Your task to perform on an android device: Check the latest 3D printers on Target. Image 0: 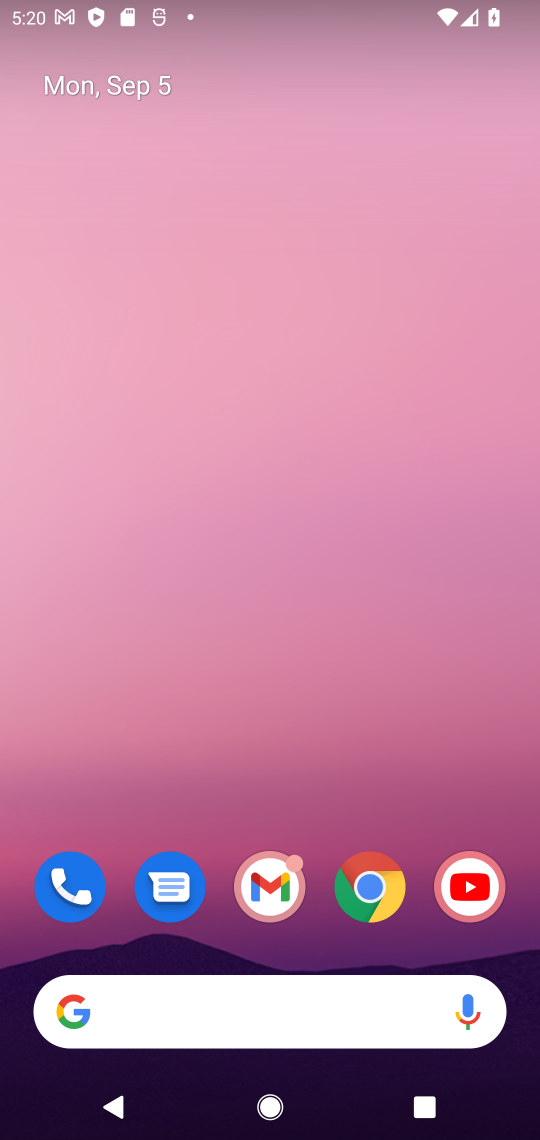
Step 0: drag from (249, 765) to (276, 0)
Your task to perform on an android device: Check the latest 3D printers on Target. Image 1: 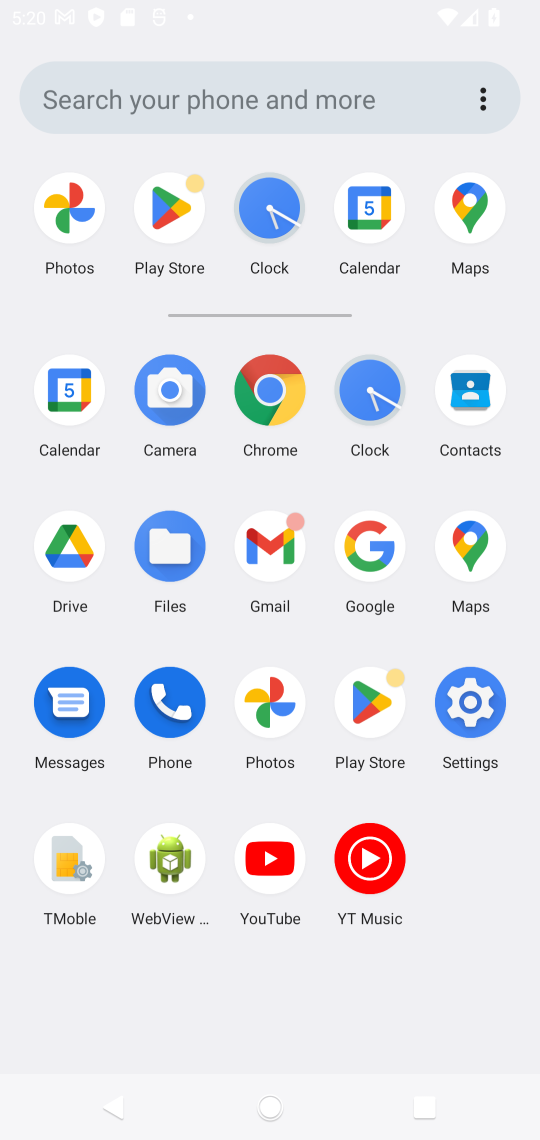
Step 1: click (276, 393)
Your task to perform on an android device: Check the latest 3D printers on Target. Image 2: 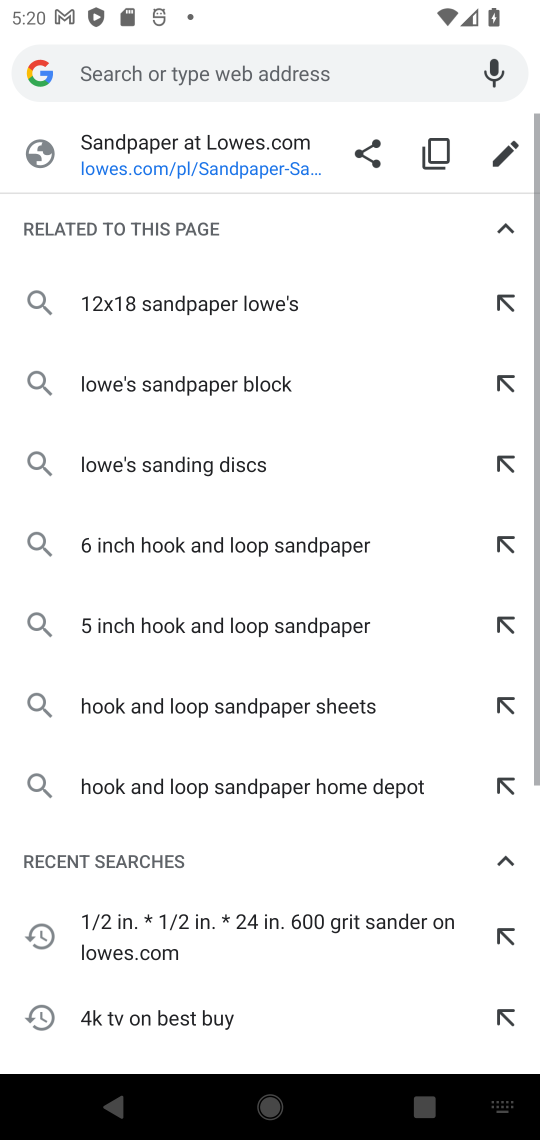
Step 2: click (211, 78)
Your task to perform on an android device: Check the latest 3D printers on Target. Image 3: 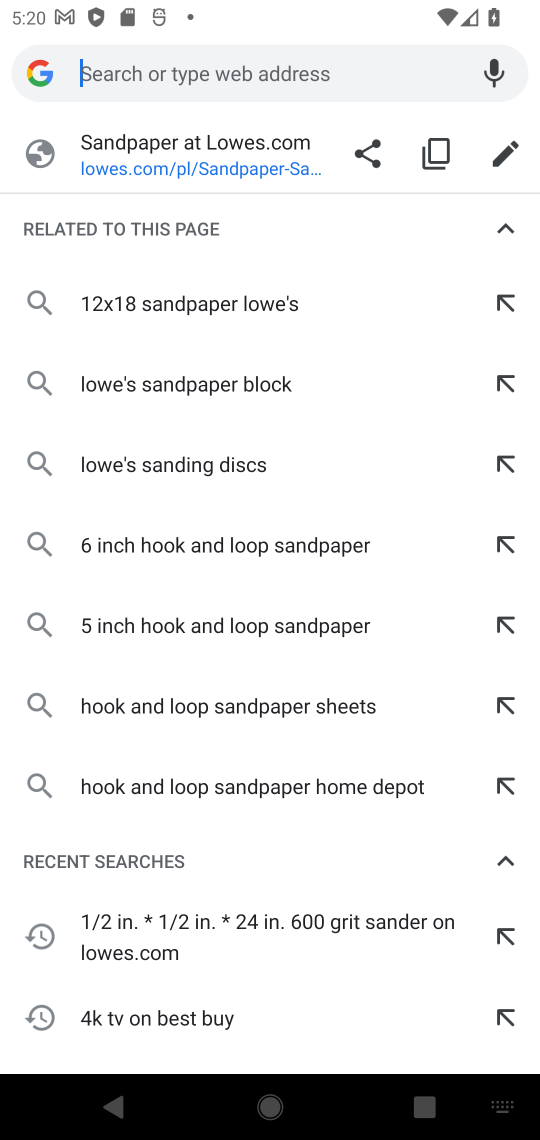
Step 3: type "letest 3D printers on Target"
Your task to perform on an android device: Check the latest 3D printers on Target. Image 4: 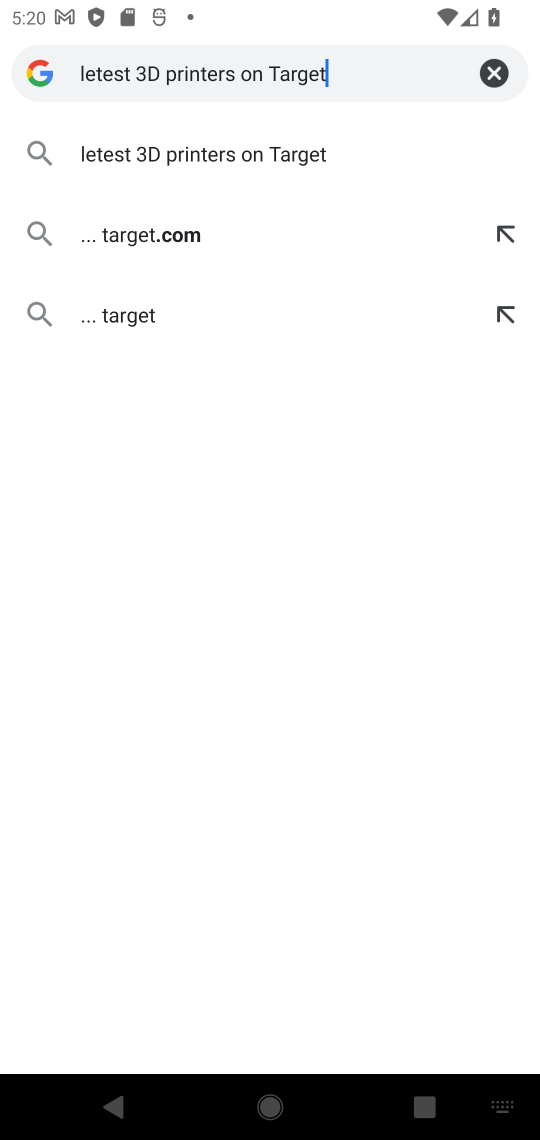
Step 4: press enter
Your task to perform on an android device: Check the latest 3D printers on Target. Image 5: 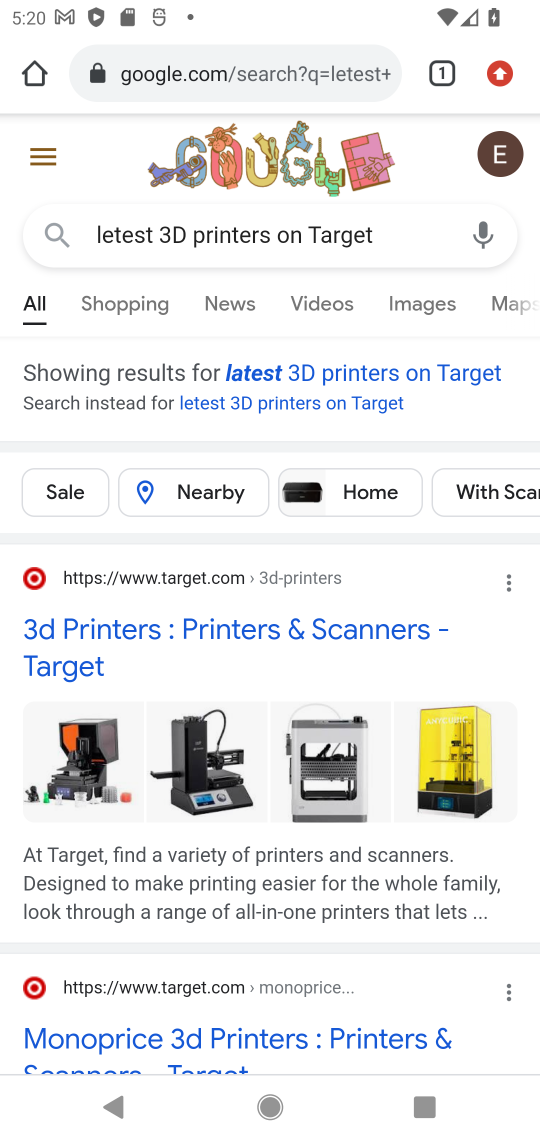
Step 5: click (357, 640)
Your task to perform on an android device: Check the latest 3D printers on Target. Image 6: 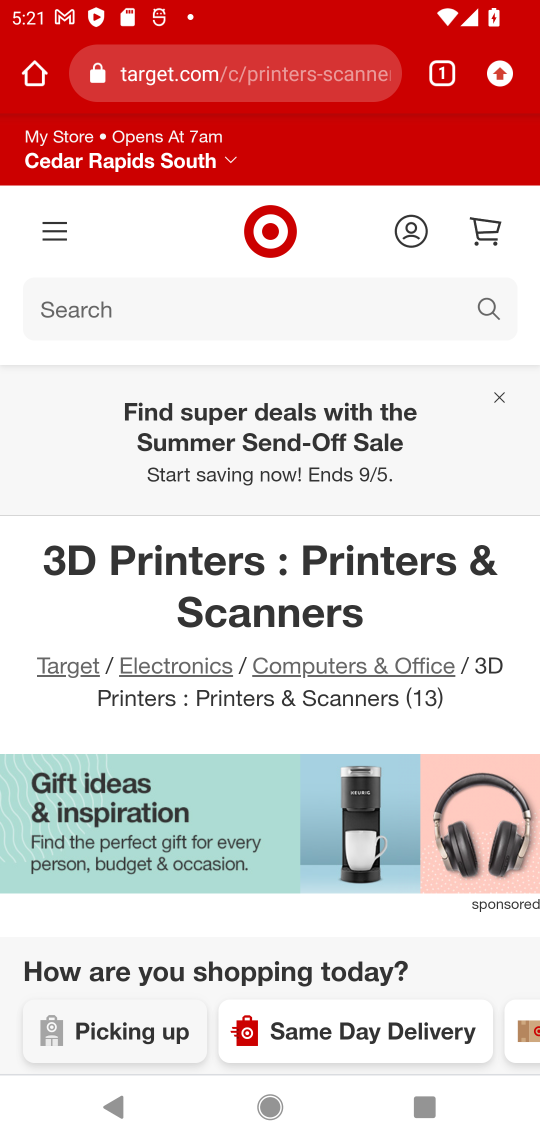
Step 6: task complete